Your task to perform on an android device: open chrome and create a bookmark for the current page Image 0: 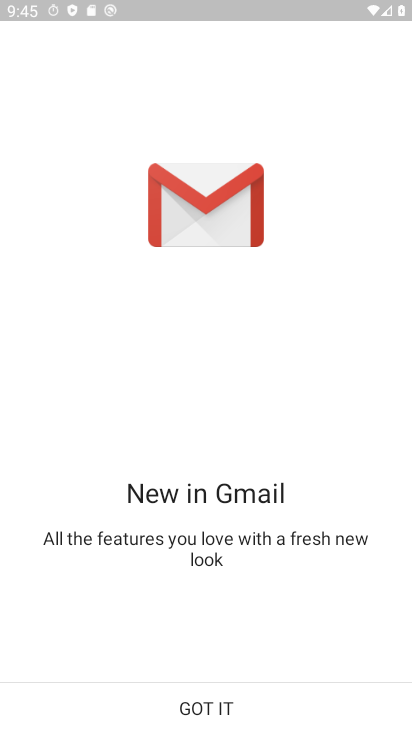
Step 0: drag from (140, 600) to (221, 35)
Your task to perform on an android device: open chrome and create a bookmark for the current page Image 1: 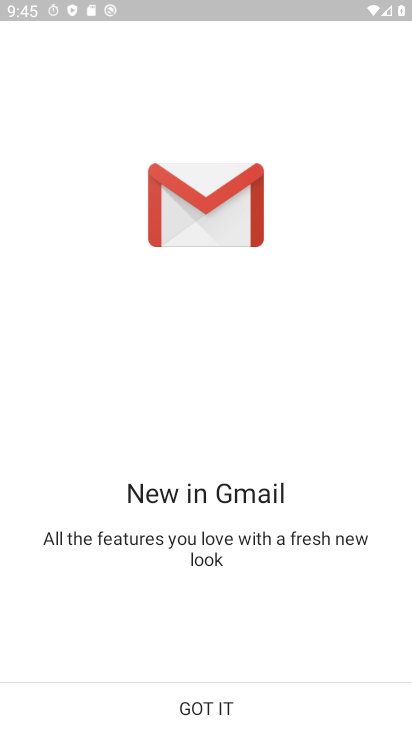
Step 1: click (188, 715)
Your task to perform on an android device: open chrome and create a bookmark for the current page Image 2: 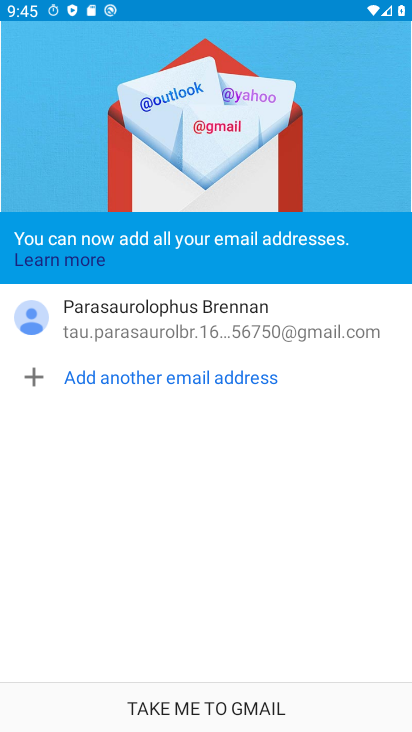
Step 2: click (215, 709)
Your task to perform on an android device: open chrome and create a bookmark for the current page Image 3: 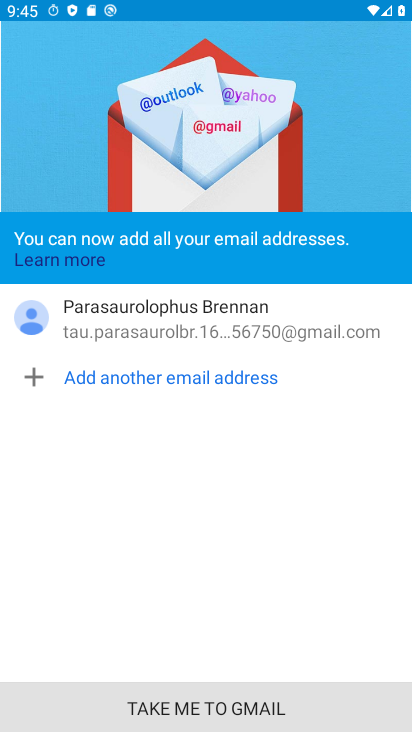
Step 3: click (198, 701)
Your task to perform on an android device: open chrome and create a bookmark for the current page Image 4: 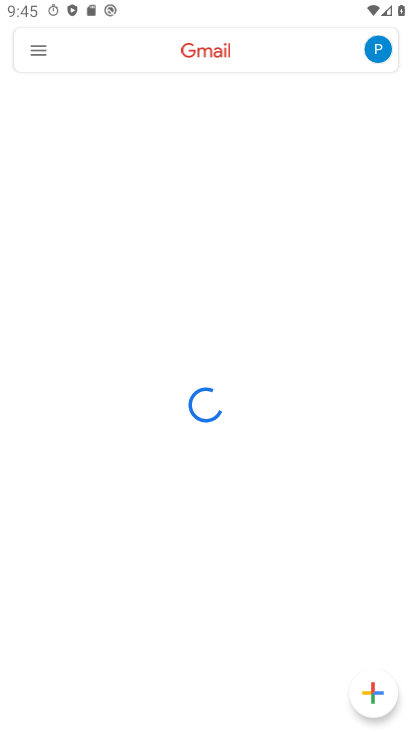
Step 4: press back button
Your task to perform on an android device: open chrome and create a bookmark for the current page Image 5: 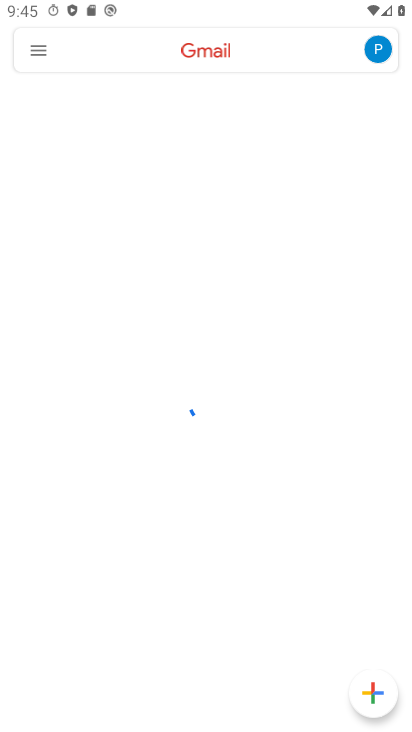
Step 5: press back button
Your task to perform on an android device: open chrome and create a bookmark for the current page Image 6: 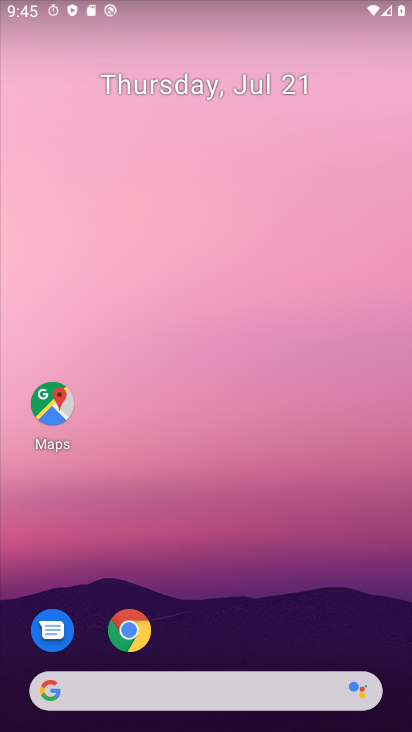
Step 6: press home button
Your task to perform on an android device: open chrome and create a bookmark for the current page Image 7: 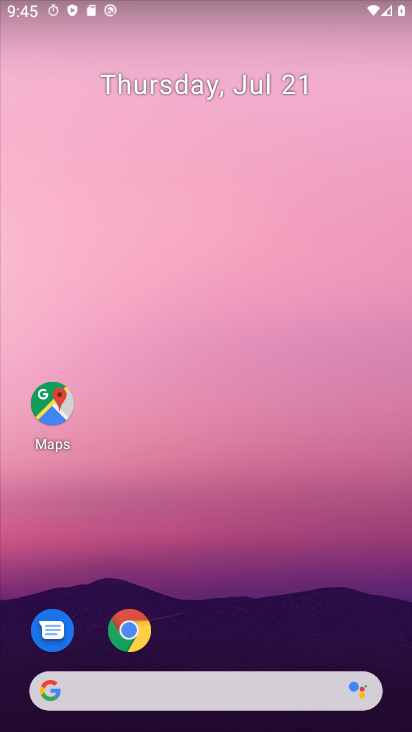
Step 7: drag from (243, 685) to (152, 230)
Your task to perform on an android device: open chrome and create a bookmark for the current page Image 8: 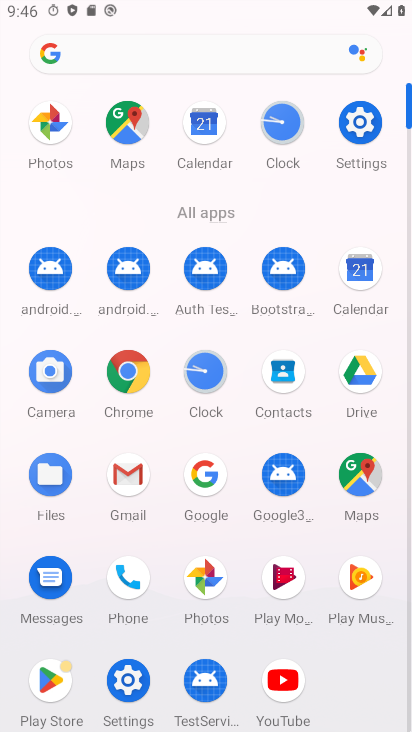
Step 8: click (126, 378)
Your task to perform on an android device: open chrome and create a bookmark for the current page Image 9: 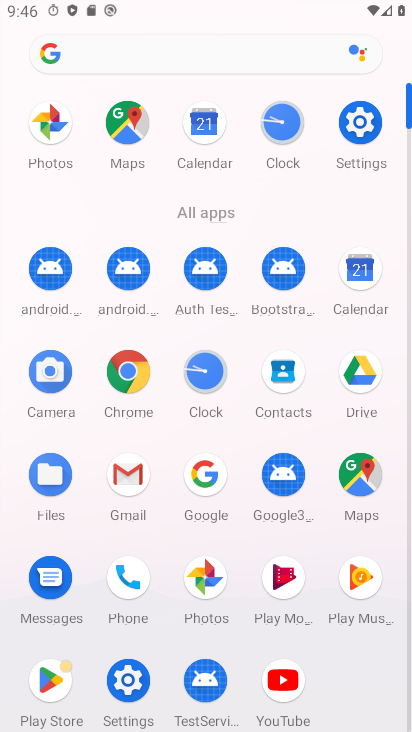
Step 9: click (126, 378)
Your task to perform on an android device: open chrome and create a bookmark for the current page Image 10: 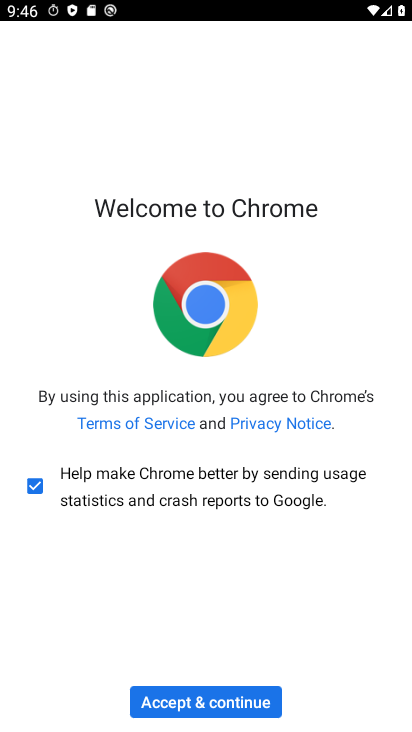
Step 10: click (230, 694)
Your task to perform on an android device: open chrome and create a bookmark for the current page Image 11: 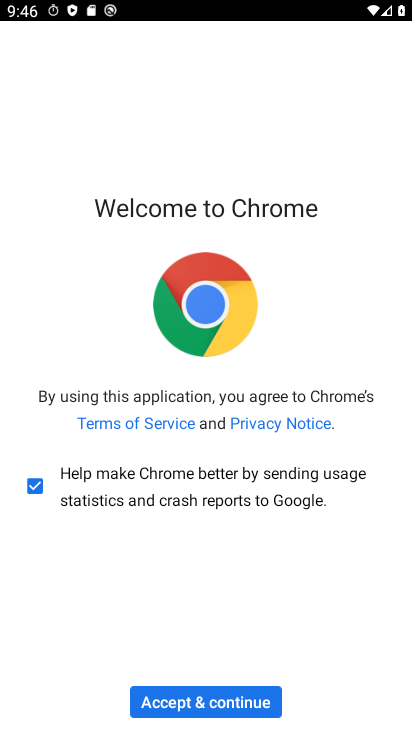
Step 11: click (230, 694)
Your task to perform on an android device: open chrome and create a bookmark for the current page Image 12: 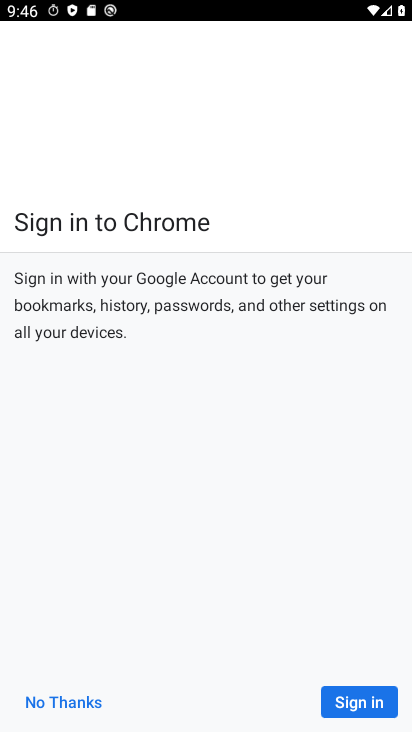
Step 12: click (231, 695)
Your task to perform on an android device: open chrome and create a bookmark for the current page Image 13: 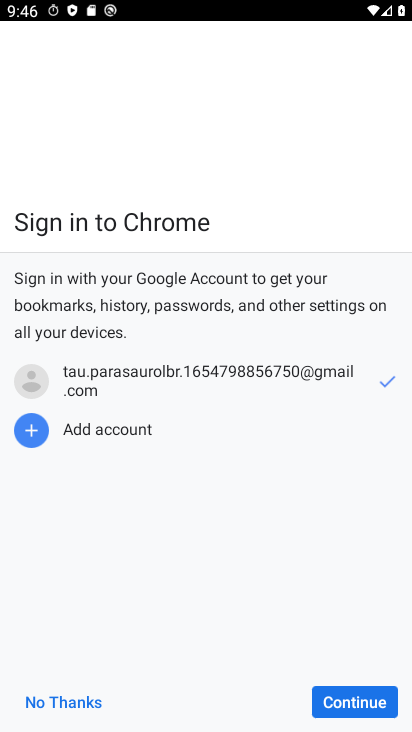
Step 13: click (65, 681)
Your task to perform on an android device: open chrome and create a bookmark for the current page Image 14: 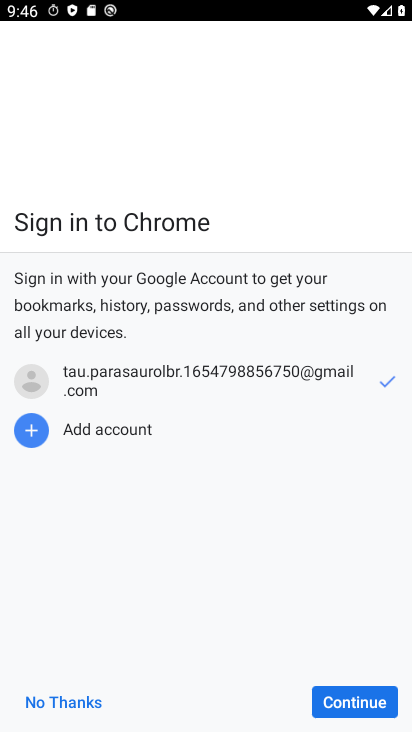
Step 14: click (66, 682)
Your task to perform on an android device: open chrome and create a bookmark for the current page Image 15: 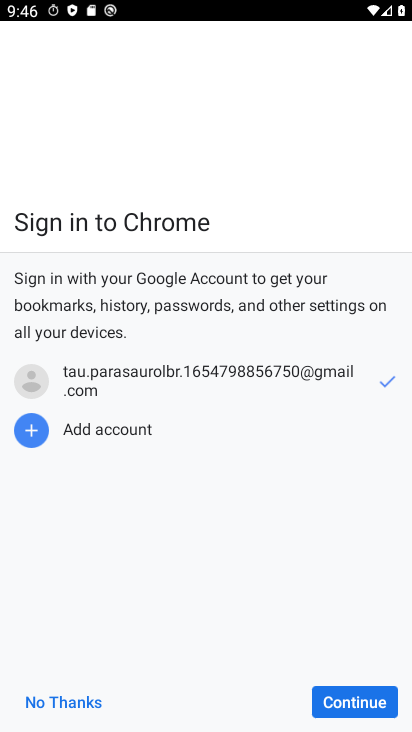
Step 15: click (49, 693)
Your task to perform on an android device: open chrome and create a bookmark for the current page Image 16: 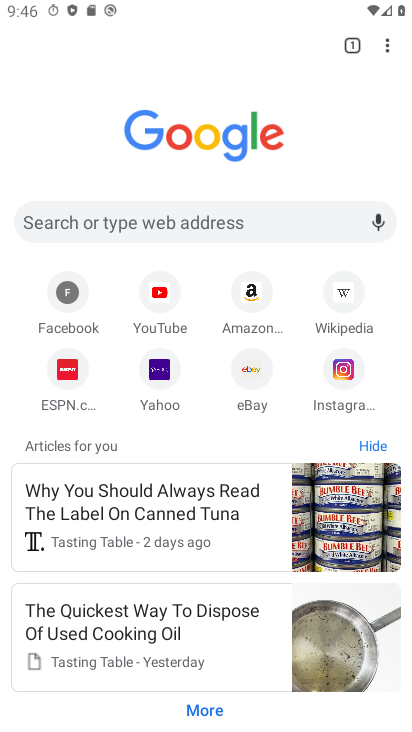
Step 16: drag from (387, 45) to (250, 52)
Your task to perform on an android device: open chrome and create a bookmark for the current page Image 17: 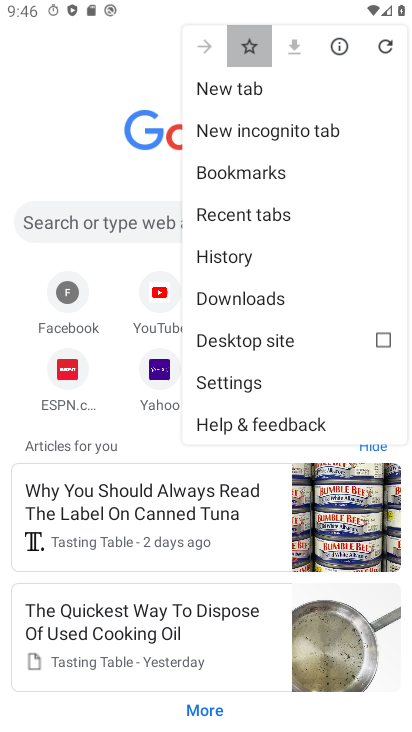
Step 17: click (252, 52)
Your task to perform on an android device: open chrome and create a bookmark for the current page Image 18: 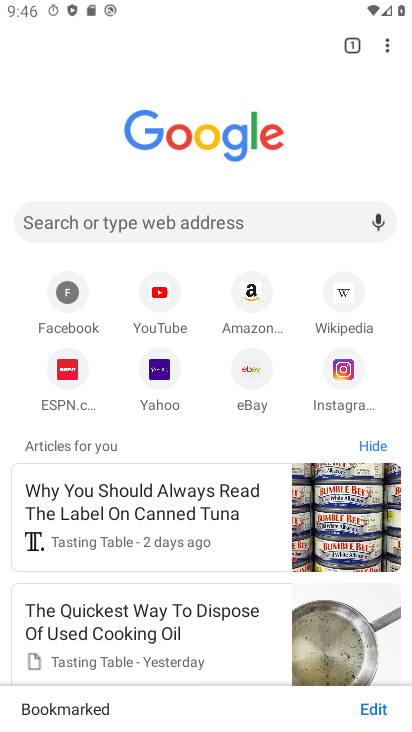
Step 18: task complete